Your task to perform on an android device: open app "Google News" Image 0: 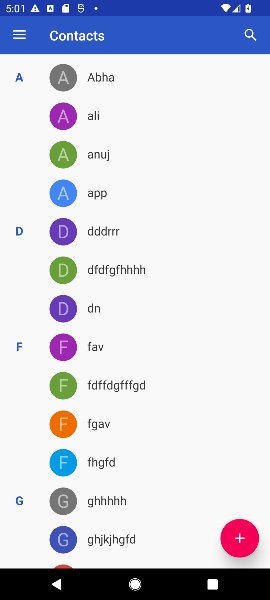
Step 0: press home button
Your task to perform on an android device: open app "Google News" Image 1: 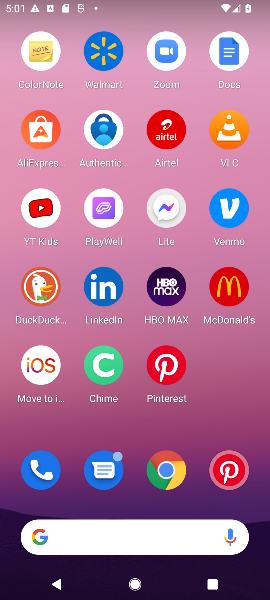
Step 1: drag from (163, 516) to (200, 83)
Your task to perform on an android device: open app "Google News" Image 2: 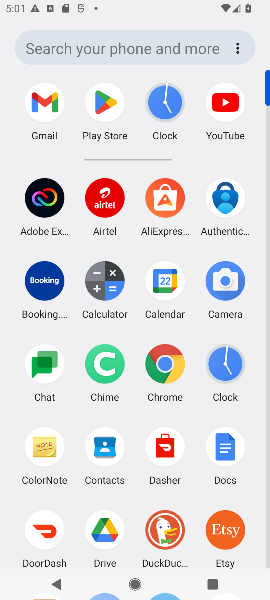
Step 2: click (111, 90)
Your task to perform on an android device: open app "Google News" Image 3: 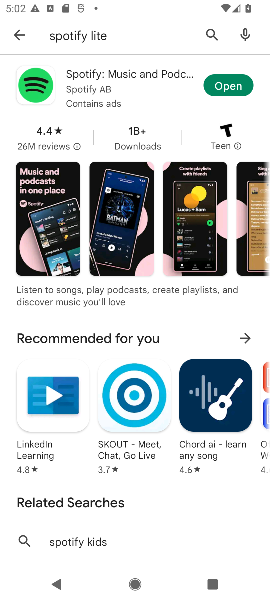
Step 3: click (29, 33)
Your task to perform on an android device: open app "Google News" Image 4: 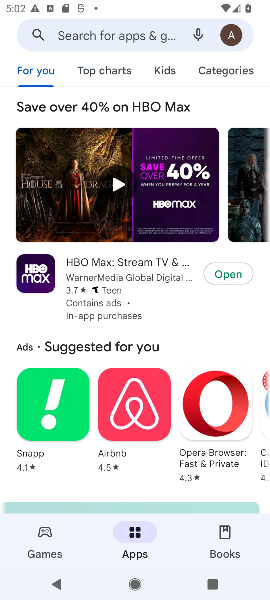
Step 4: click (120, 32)
Your task to perform on an android device: open app "Google News" Image 5: 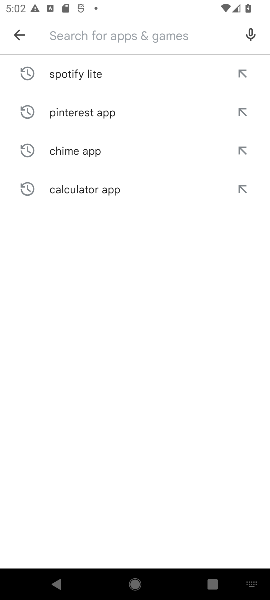
Step 5: type "Google News "
Your task to perform on an android device: open app "Google News" Image 6: 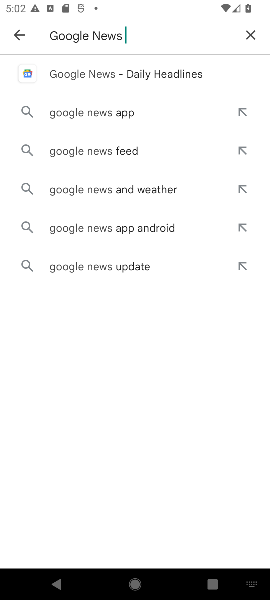
Step 6: click (166, 56)
Your task to perform on an android device: open app "Google News" Image 7: 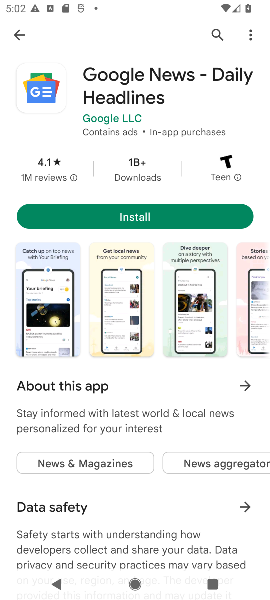
Step 7: click (143, 220)
Your task to perform on an android device: open app "Google News" Image 8: 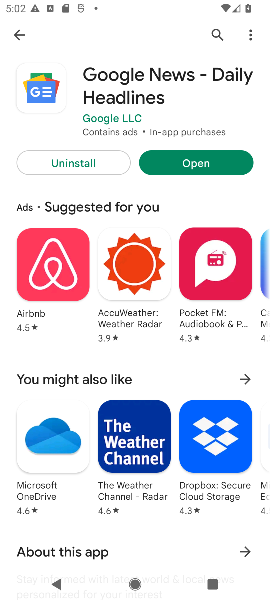
Step 8: click (192, 156)
Your task to perform on an android device: open app "Google News" Image 9: 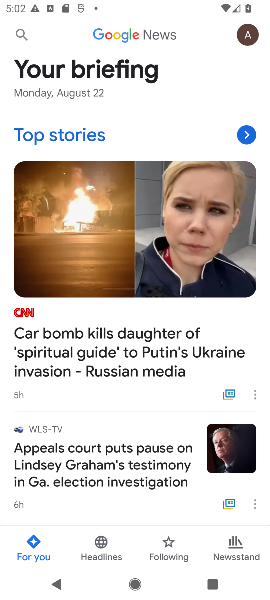
Step 9: task complete